Your task to perform on an android device: toggle show notifications on the lock screen Image 0: 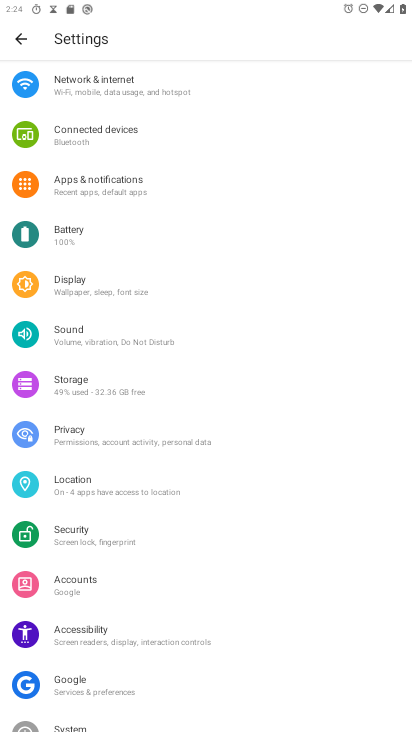
Step 0: press home button
Your task to perform on an android device: toggle show notifications on the lock screen Image 1: 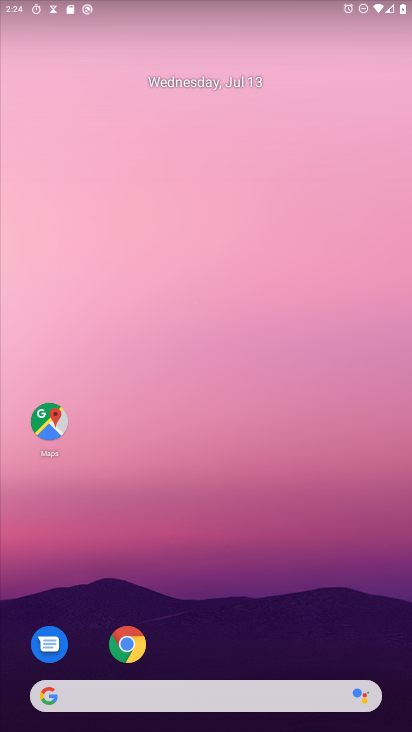
Step 1: drag from (282, 554) to (285, 18)
Your task to perform on an android device: toggle show notifications on the lock screen Image 2: 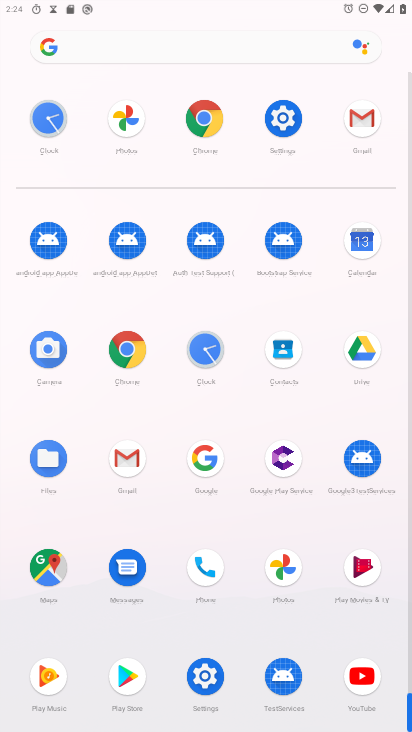
Step 2: click (283, 123)
Your task to perform on an android device: toggle show notifications on the lock screen Image 3: 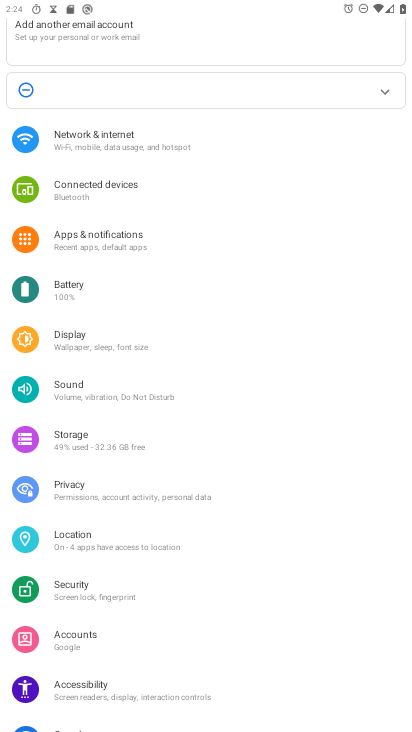
Step 3: click (121, 240)
Your task to perform on an android device: toggle show notifications on the lock screen Image 4: 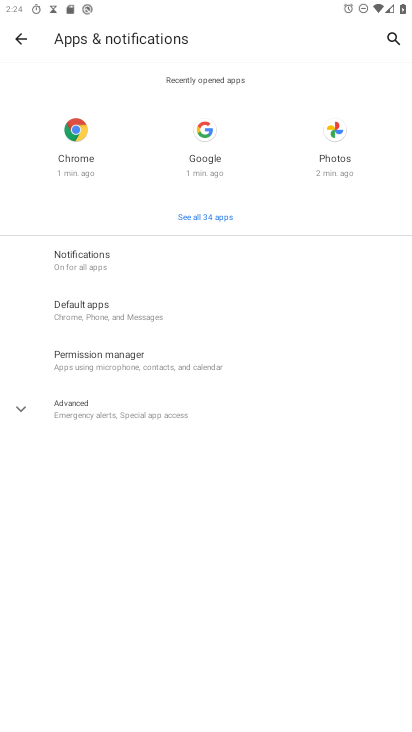
Step 4: click (66, 259)
Your task to perform on an android device: toggle show notifications on the lock screen Image 5: 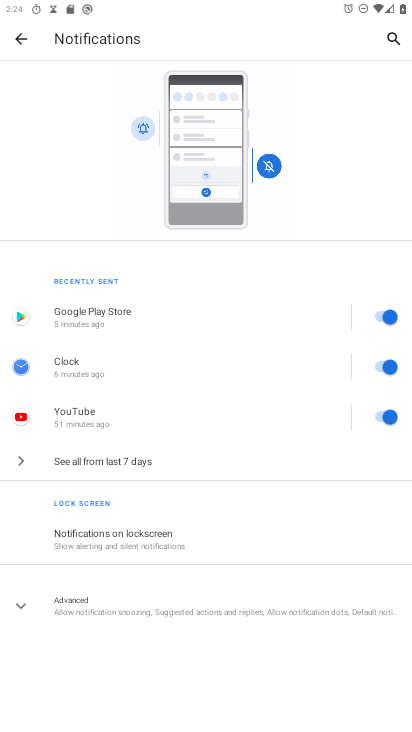
Step 5: click (112, 537)
Your task to perform on an android device: toggle show notifications on the lock screen Image 6: 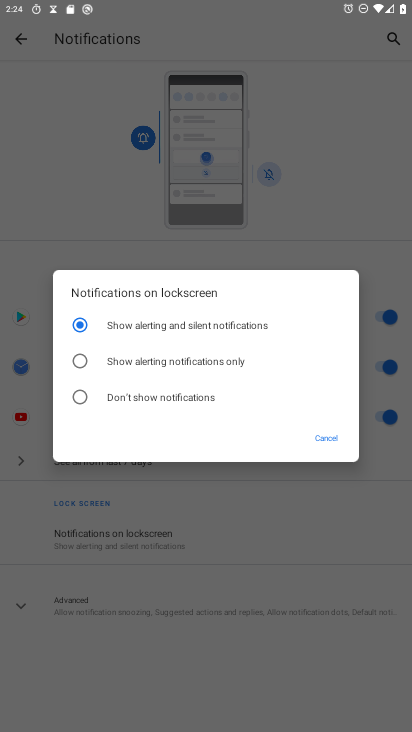
Step 6: task complete